Your task to perform on an android device: turn off sleep mode Image 0: 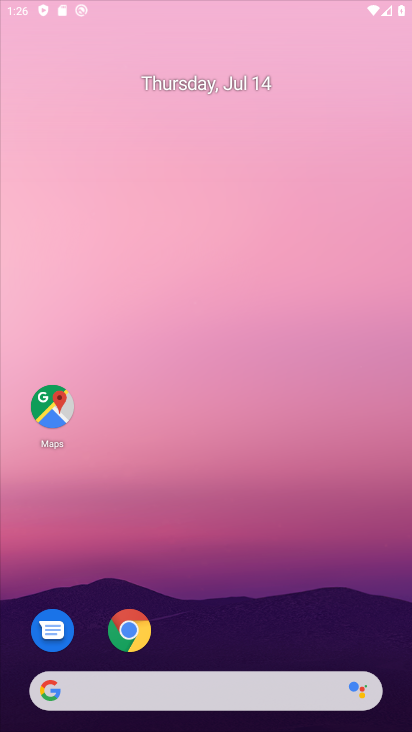
Step 0: click (289, 103)
Your task to perform on an android device: turn off sleep mode Image 1: 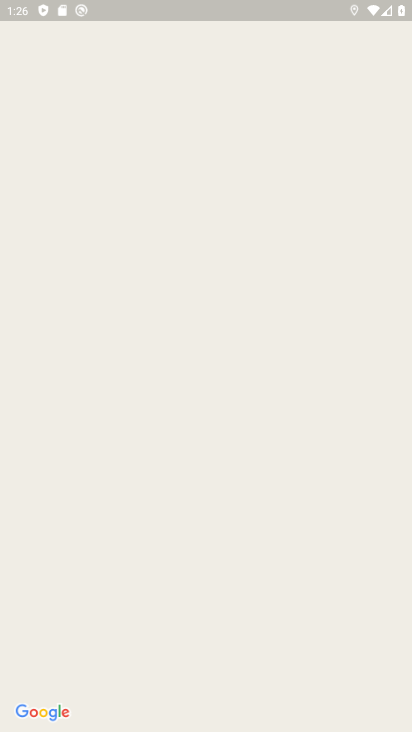
Step 1: drag from (207, 556) to (270, 143)
Your task to perform on an android device: turn off sleep mode Image 2: 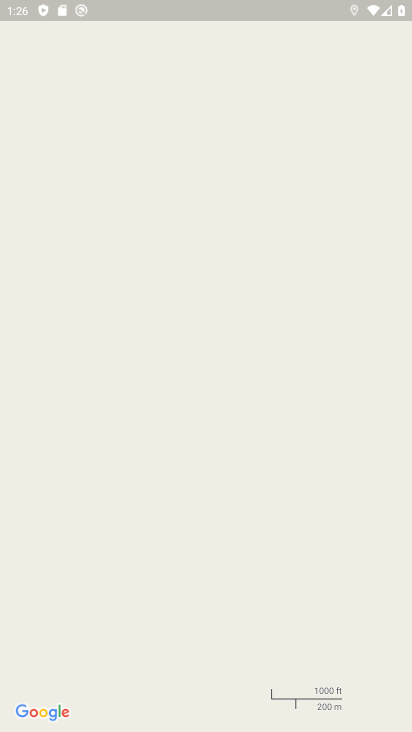
Step 2: drag from (269, 229) to (395, 713)
Your task to perform on an android device: turn off sleep mode Image 3: 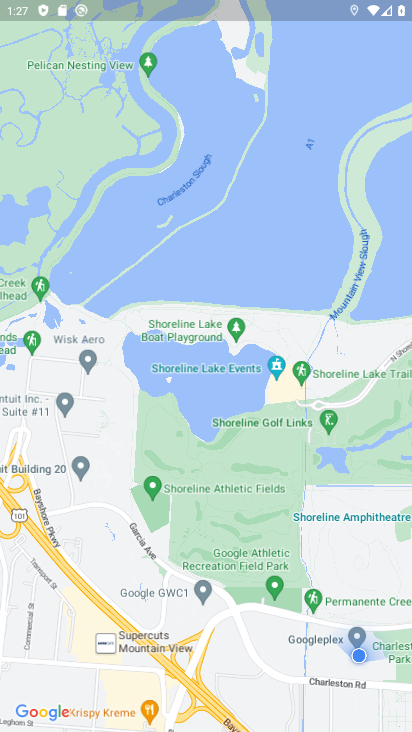
Step 3: drag from (214, 247) to (293, 689)
Your task to perform on an android device: turn off sleep mode Image 4: 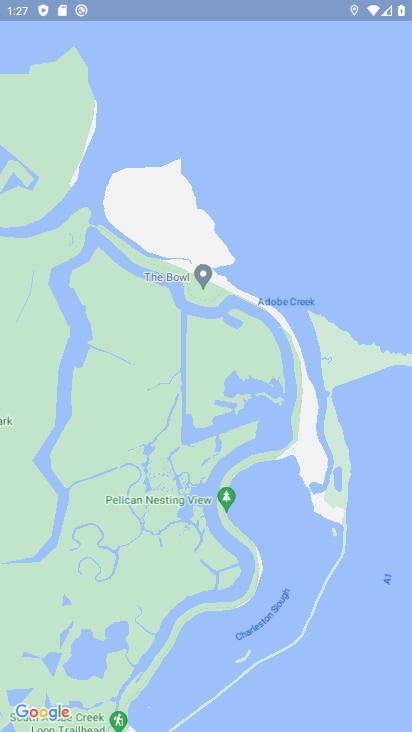
Step 4: press home button
Your task to perform on an android device: turn off sleep mode Image 5: 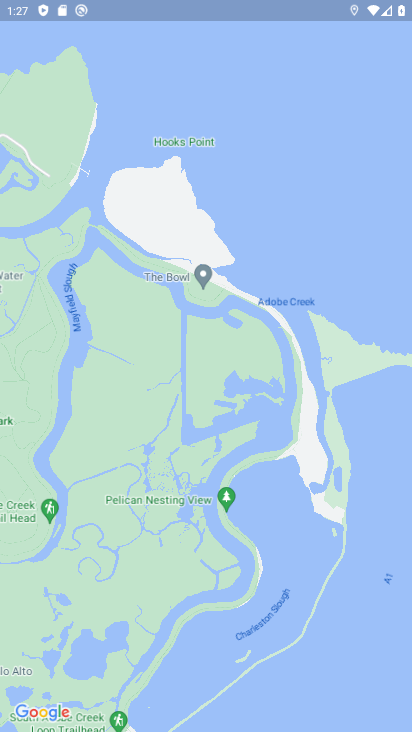
Step 5: click (234, 91)
Your task to perform on an android device: turn off sleep mode Image 6: 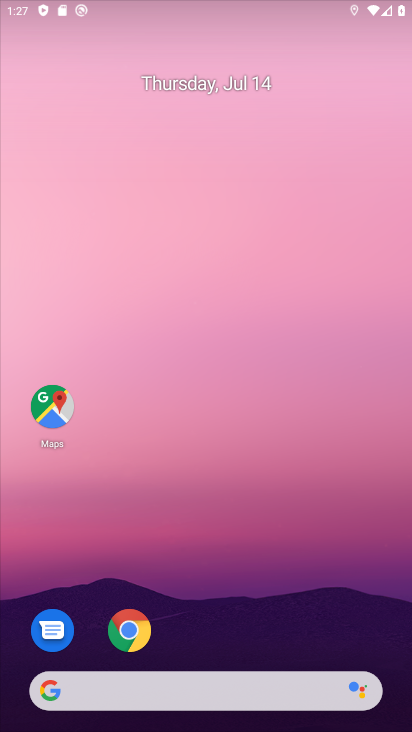
Step 6: drag from (183, 683) to (254, 200)
Your task to perform on an android device: turn off sleep mode Image 7: 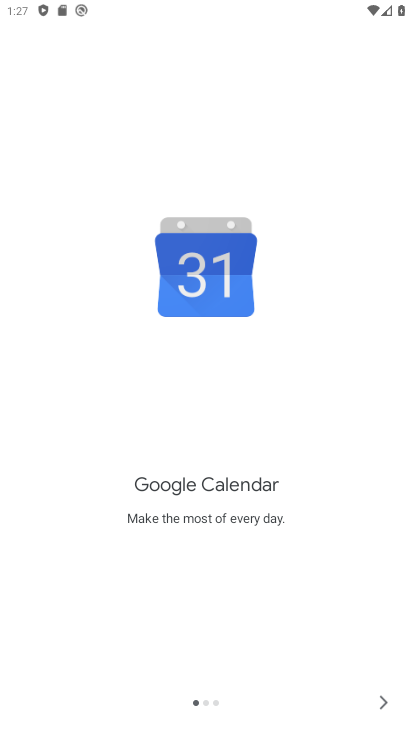
Step 7: press home button
Your task to perform on an android device: turn off sleep mode Image 8: 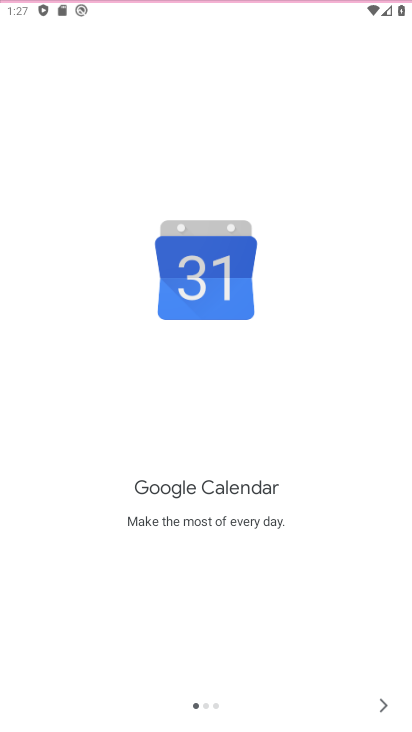
Step 8: press home button
Your task to perform on an android device: turn off sleep mode Image 9: 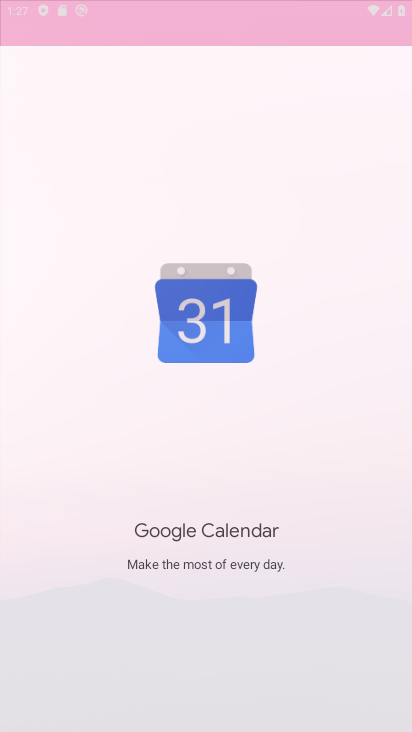
Step 9: click (246, 256)
Your task to perform on an android device: turn off sleep mode Image 10: 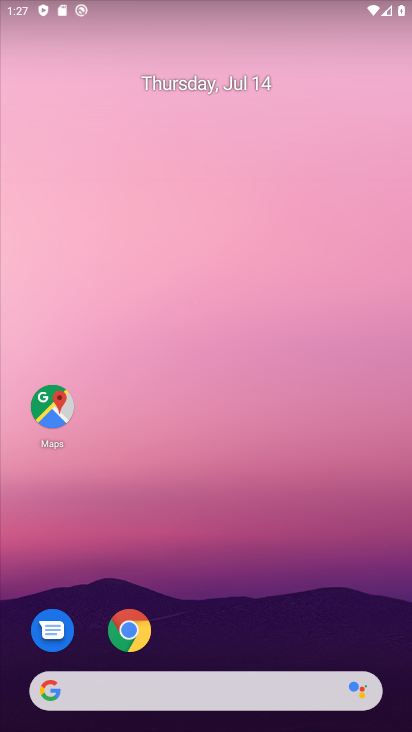
Step 10: drag from (175, 641) to (266, 118)
Your task to perform on an android device: turn off sleep mode Image 11: 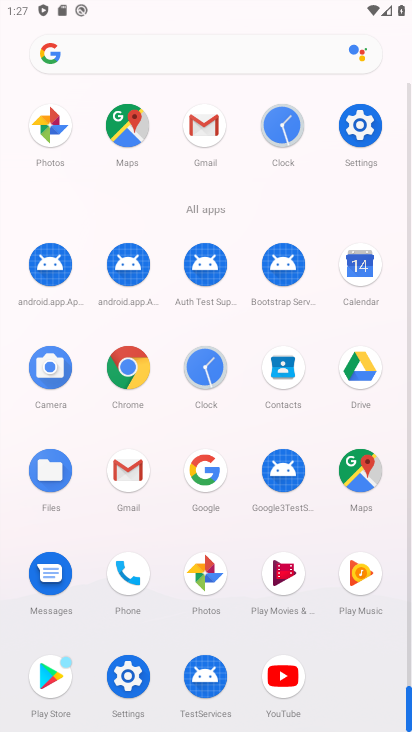
Step 11: drag from (229, 601) to (283, 308)
Your task to perform on an android device: turn off sleep mode Image 12: 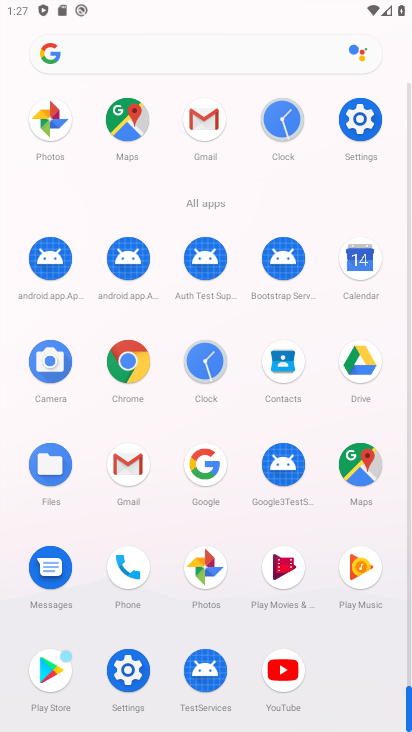
Step 12: drag from (169, 577) to (174, 233)
Your task to perform on an android device: turn off sleep mode Image 13: 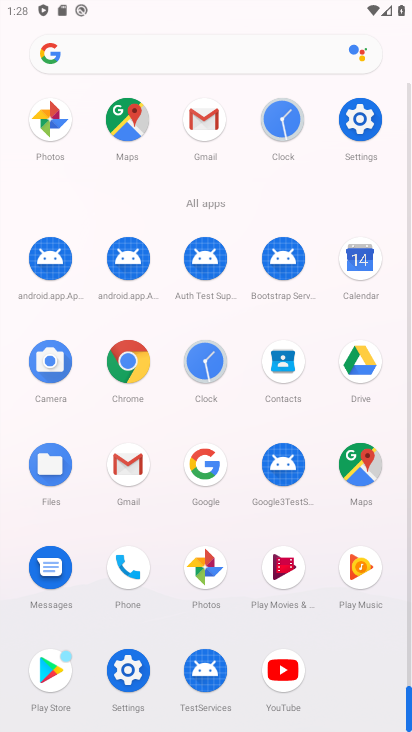
Step 13: click (357, 110)
Your task to perform on an android device: turn off sleep mode Image 14: 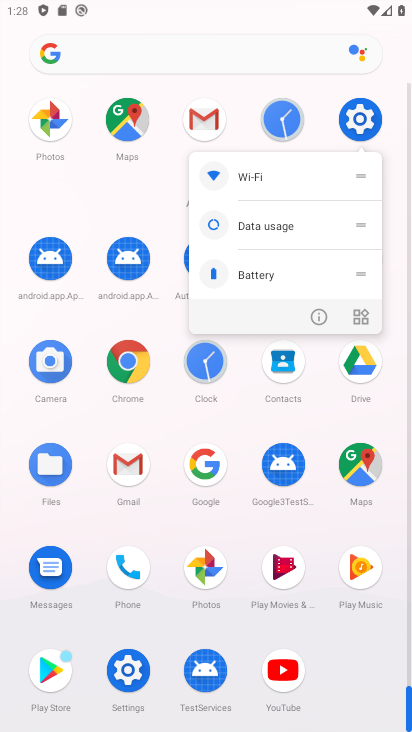
Step 14: click (319, 312)
Your task to perform on an android device: turn off sleep mode Image 15: 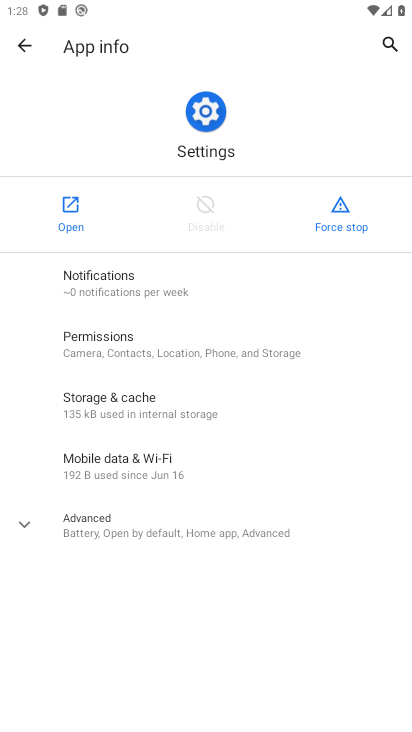
Step 15: click (80, 207)
Your task to perform on an android device: turn off sleep mode Image 16: 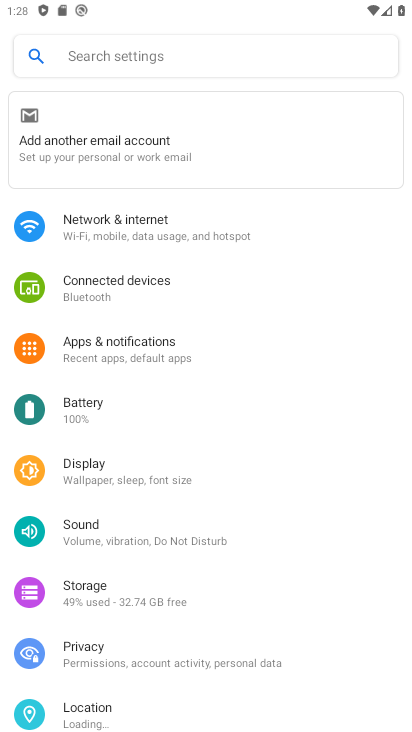
Step 16: drag from (254, 341) to (267, 230)
Your task to perform on an android device: turn off sleep mode Image 17: 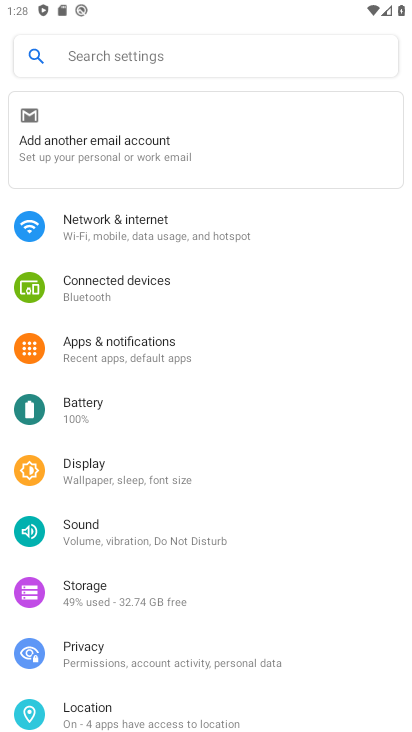
Step 17: drag from (193, 643) to (211, 335)
Your task to perform on an android device: turn off sleep mode Image 18: 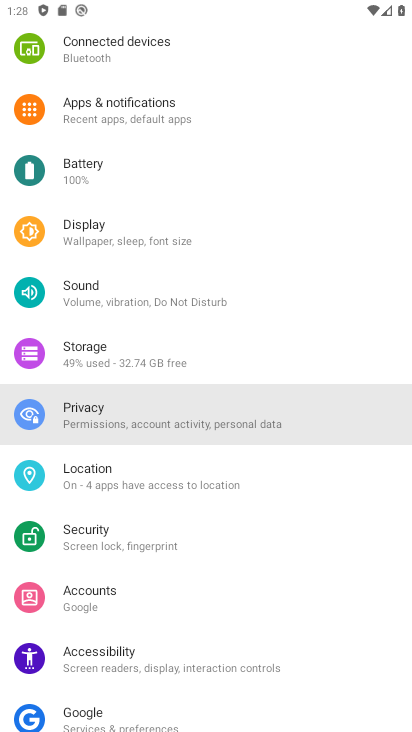
Step 18: drag from (204, 303) to (231, 693)
Your task to perform on an android device: turn off sleep mode Image 19: 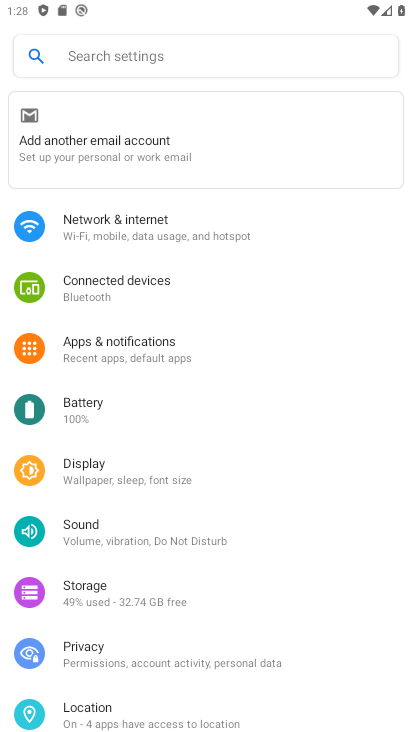
Step 19: drag from (158, 365) to (233, 711)
Your task to perform on an android device: turn off sleep mode Image 20: 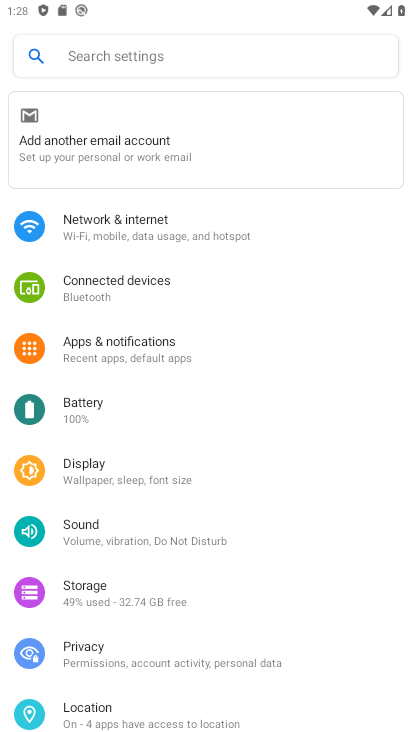
Step 20: drag from (219, 605) to (222, 360)
Your task to perform on an android device: turn off sleep mode Image 21: 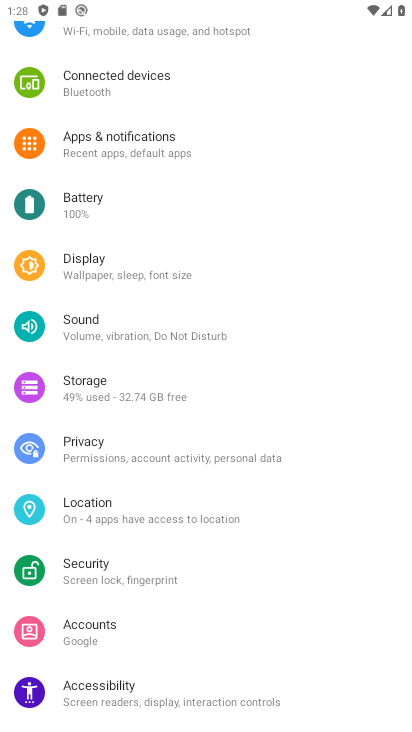
Step 21: drag from (201, 634) to (201, 404)
Your task to perform on an android device: turn off sleep mode Image 22: 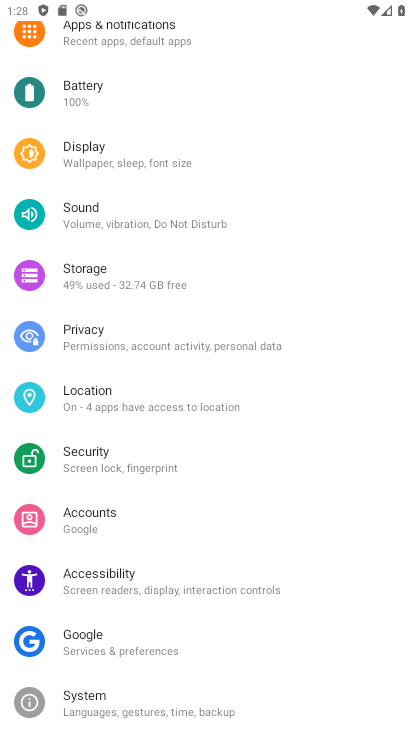
Step 22: drag from (181, 323) to (189, 550)
Your task to perform on an android device: turn off sleep mode Image 23: 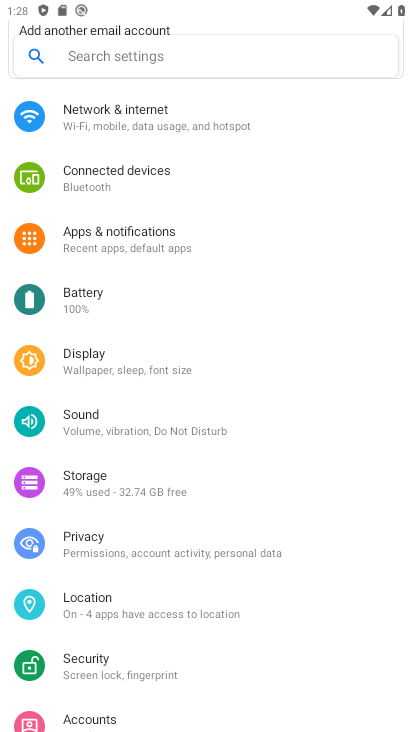
Step 23: drag from (213, 356) to (329, 657)
Your task to perform on an android device: turn off sleep mode Image 24: 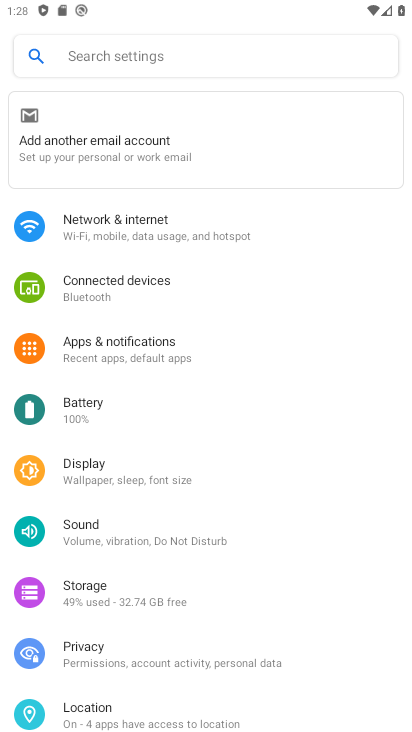
Step 24: drag from (147, 464) to (241, 730)
Your task to perform on an android device: turn off sleep mode Image 25: 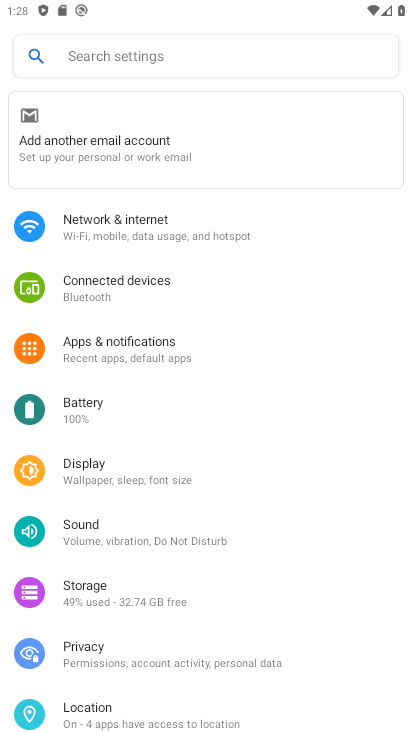
Step 25: drag from (259, 568) to (275, 297)
Your task to perform on an android device: turn off sleep mode Image 26: 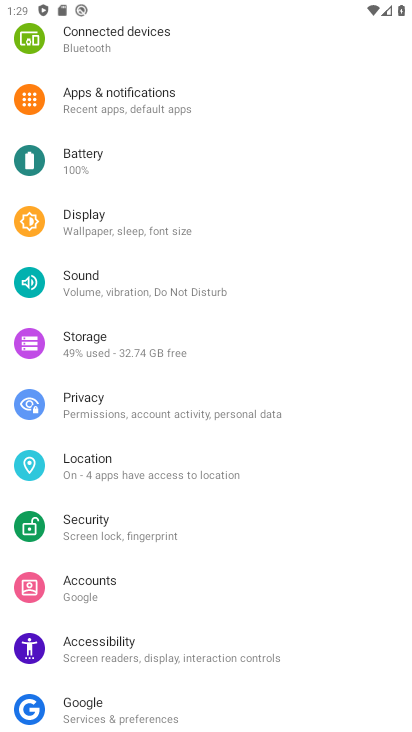
Step 26: drag from (212, 591) to (229, 245)
Your task to perform on an android device: turn off sleep mode Image 27: 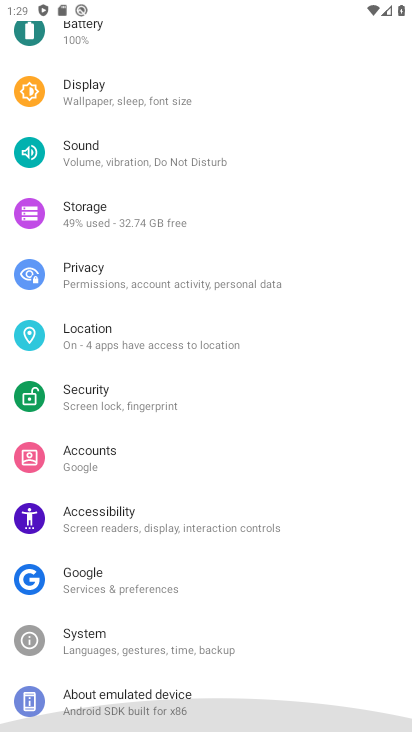
Step 27: drag from (221, 197) to (210, 730)
Your task to perform on an android device: turn off sleep mode Image 28: 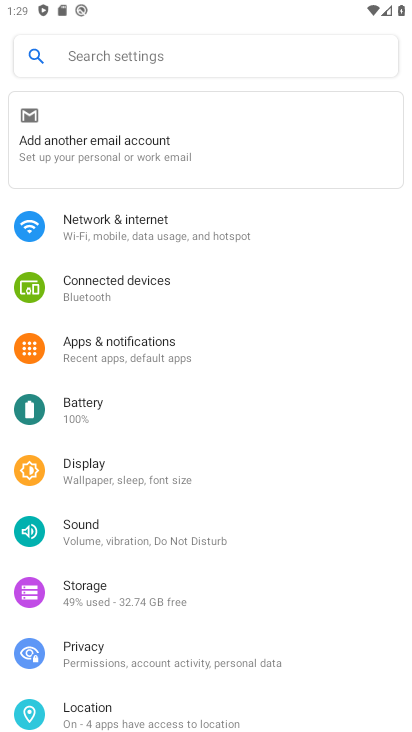
Step 28: drag from (213, 185) to (320, 663)
Your task to perform on an android device: turn off sleep mode Image 29: 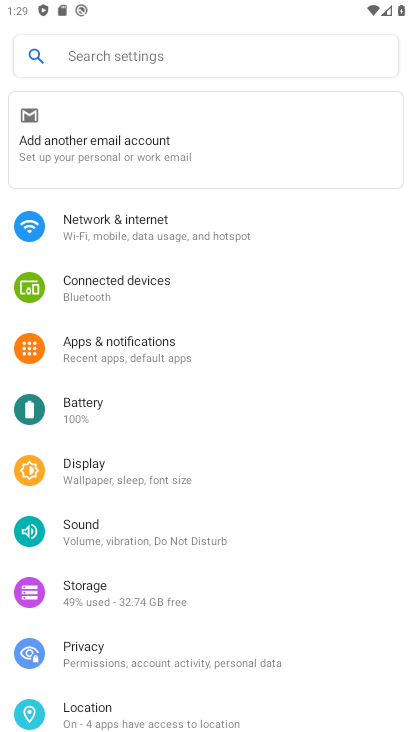
Step 29: drag from (198, 306) to (212, 529)
Your task to perform on an android device: turn off sleep mode Image 30: 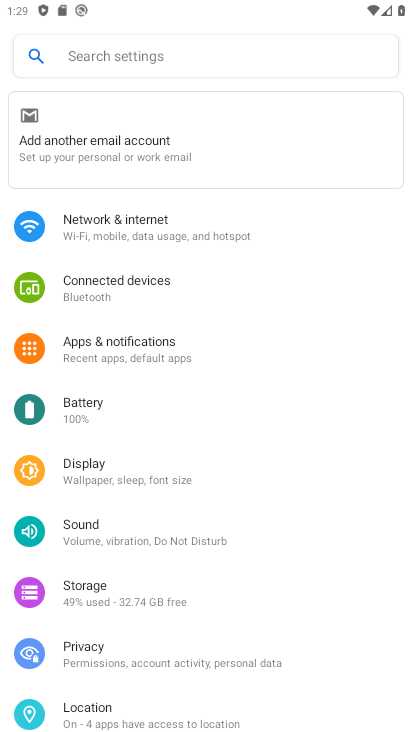
Step 30: drag from (167, 662) to (237, 164)
Your task to perform on an android device: turn off sleep mode Image 31: 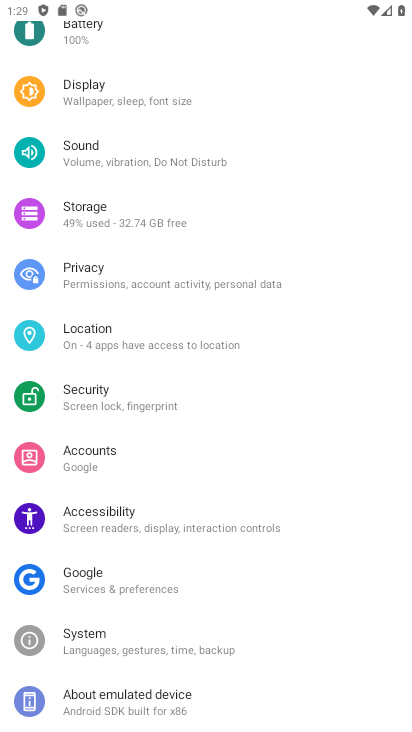
Step 31: drag from (211, 496) to (330, 135)
Your task to perform on an android device: turn off sleep mode Image 32: 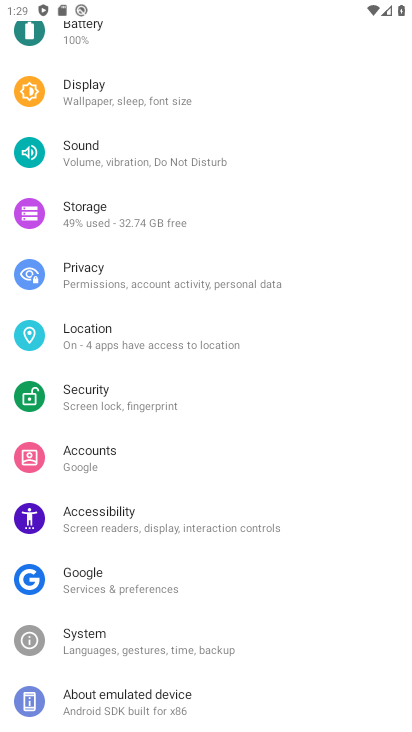
Step 32: drag from (144, 633) to (193, 339)
Your task to perform on an android device: turn off sleep mode Image 33: 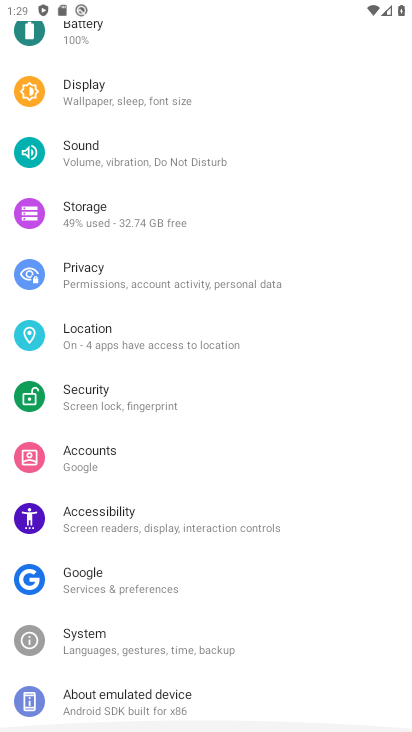
Step 33: drag from (199, 247) to (240, 725)
Your task to perform on an android device: turn off sleep mode Image 34: 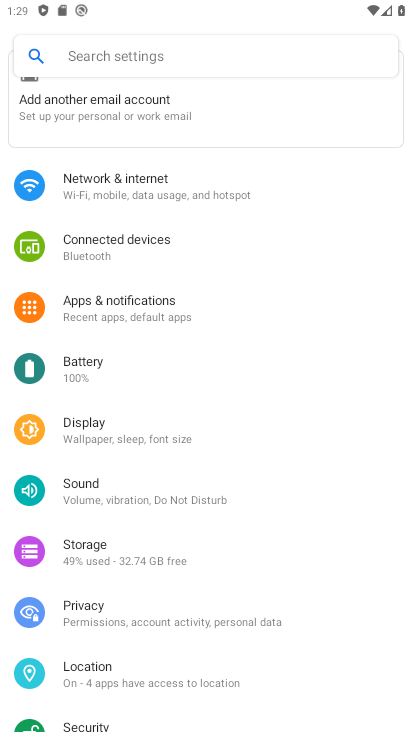
Step 34: click (113, 438)
Your task to perform on an android device: turn off sleep mode Image 35: 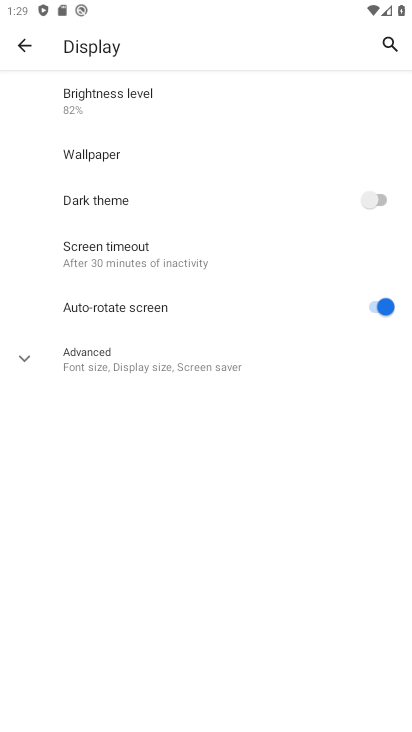
Step 35: click (159, 256)
Your task to perform on an android device: turn off sleep mode Image 36: 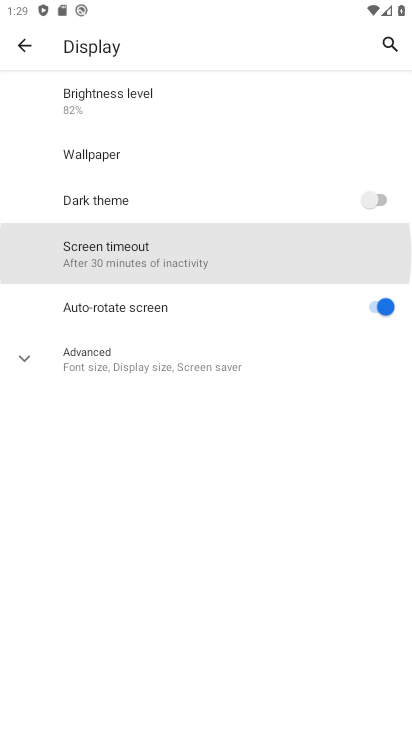
Step 36: click (159, 256)
Your task to perform on an android device: turn off sleep mode Image 37: 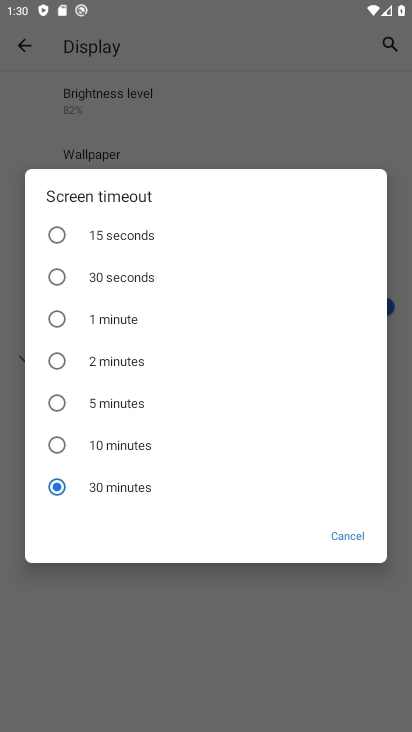
Step 37: task complete